Your task to perform on an android device: What is the news today? Image 0: 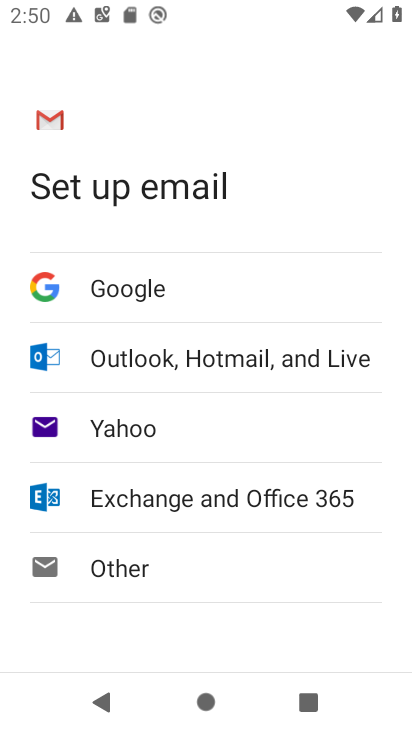
Step 0: press home button
Your task to perform on an android device: What is the news today? Image 1: 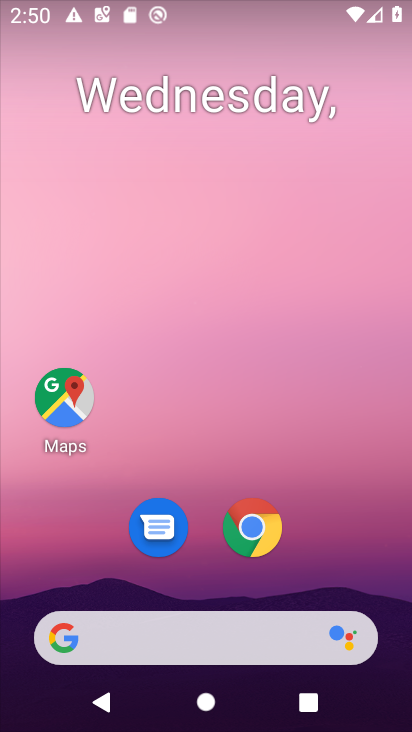
Step 1: drag from (329, 564) to (342, 68)
Your task to perform on an android device: What is the news today? Image 2: 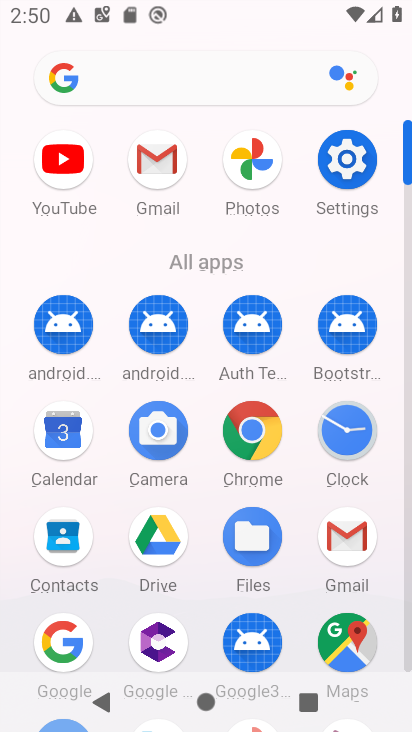
Step 2: click (246, 427)
Your task to perform on an android device: What is the news today? Image 3: 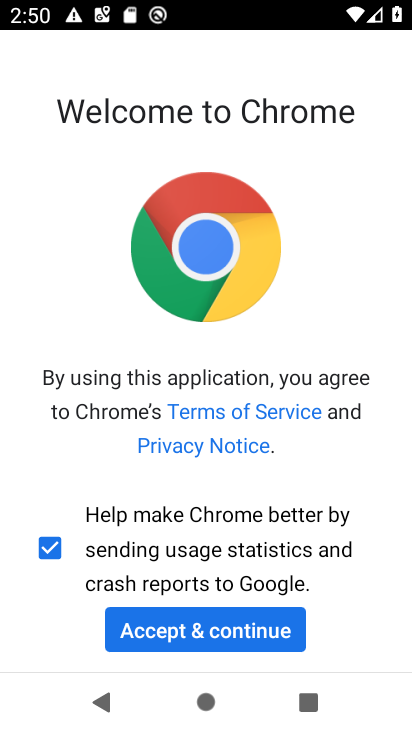
Step 3: click (203, 636)
Your task to perform on an android device: What is the news today? Image 4: 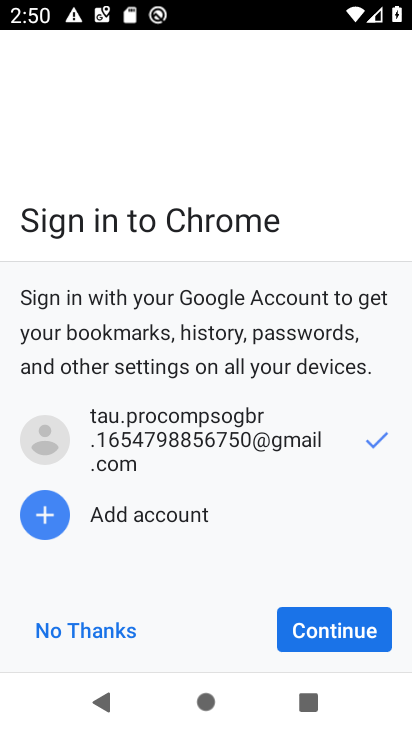
Step 4: click (337, 621)
Your task to perform on an android device: What is the news today? Image 5: 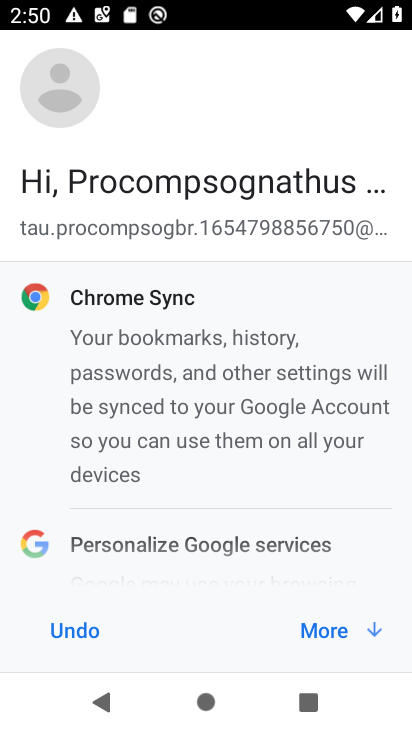
Step 5: click (332, 626)
Your task to perform on an android device: What is the news today? Image 6: 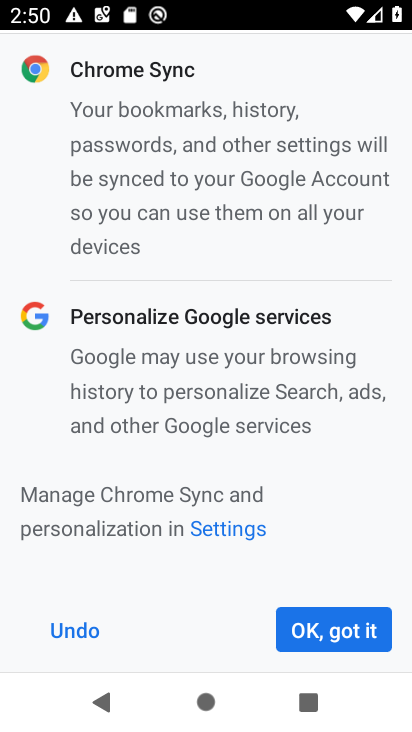
Step 6: click (308, 630)
Your task to perform on an android device: What is the news today? Image 7: 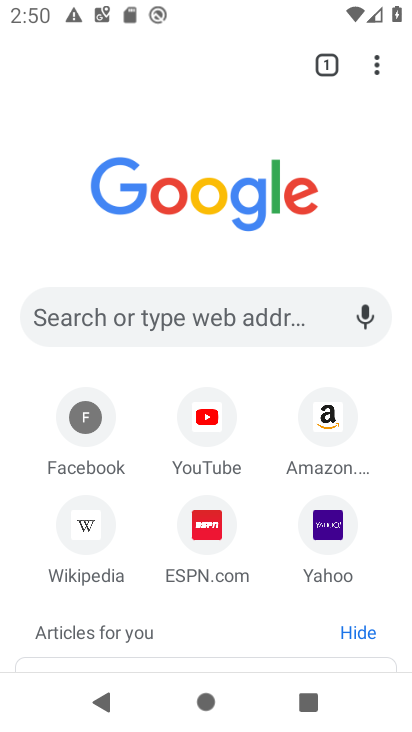
Step 7: click (218, 319)
Your task to perform on an android device: What is the news today? Image 8: 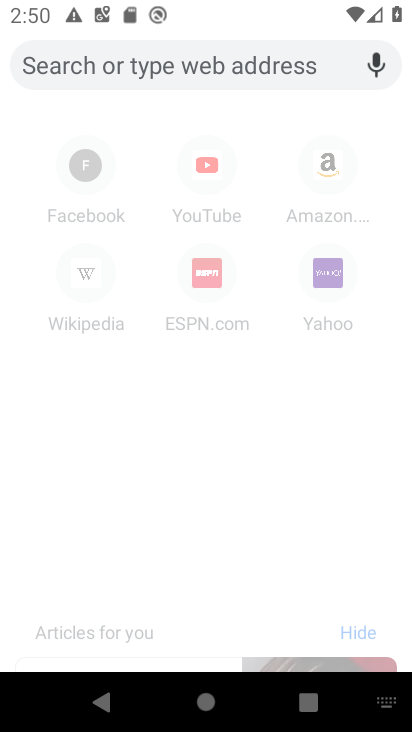
Step 8: type "news"
Your task to perform on an android device: What is the news today? Image 9: 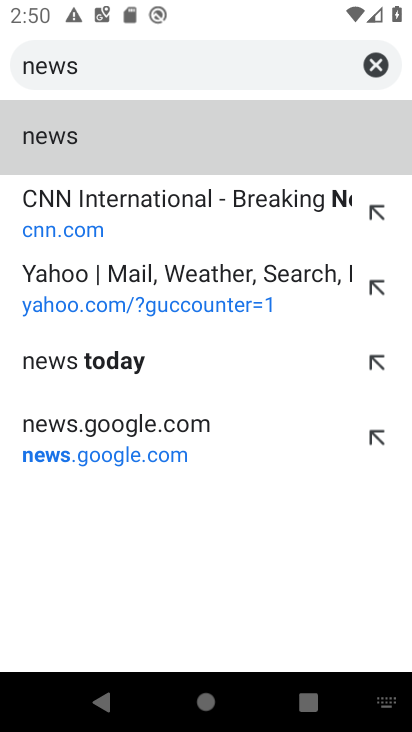
Step 9: click (45, 129)
Your task to perform on an android device: What is the news today? Image 10: 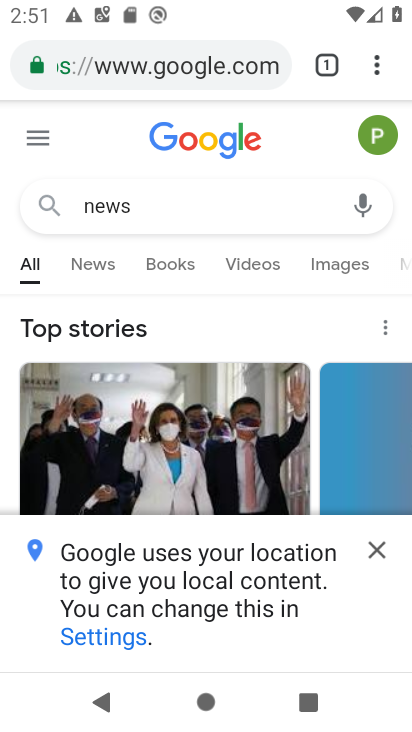
Step 10: drag from (198, 324) to (200, 14)
Your task to perform on an android device: What is the news today? Image 11: 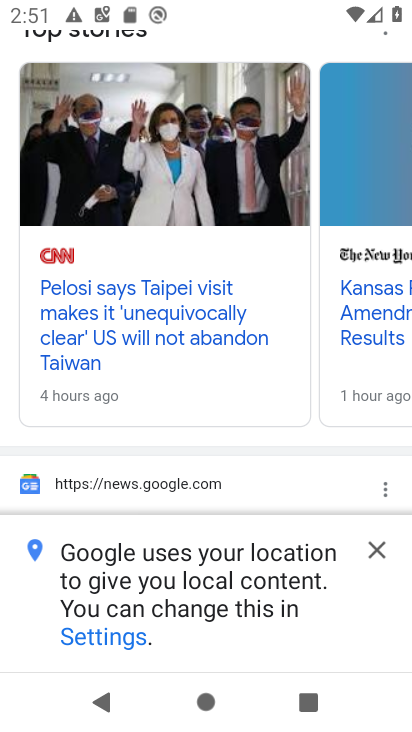
Step 11: click (378, 548)
Your task to perform on an android device: What is the news today? Image 12: 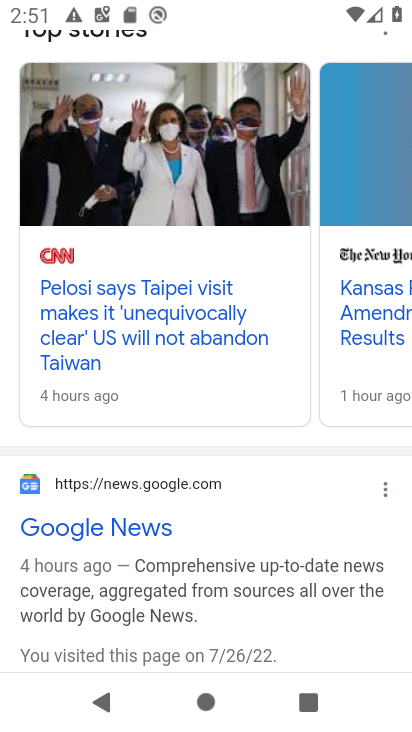
Step 12: click (75, 527)
Your task to perform on an android device: What is the news today? Image 13: 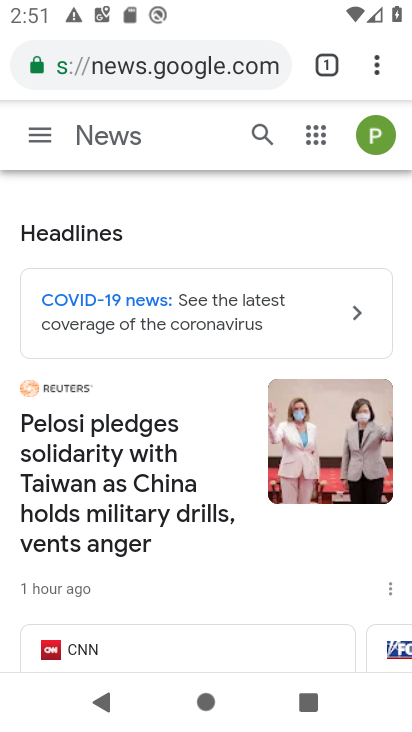
Step 13: task complete